Your task to perform on an android device: Open internet settings Image 0: 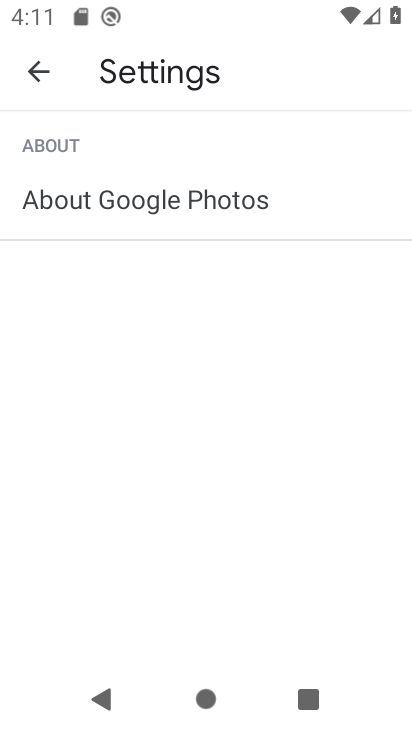
Step 0: press home button
Your task to perform on an android device: Open internet settings Image 1: 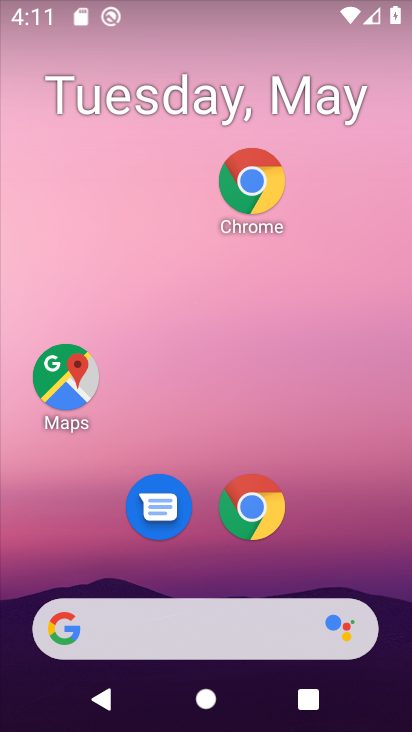
Step 1: drag from (361, 555) to (316, 75)
Your task to perform on an android device: Open internet settings Image 2: 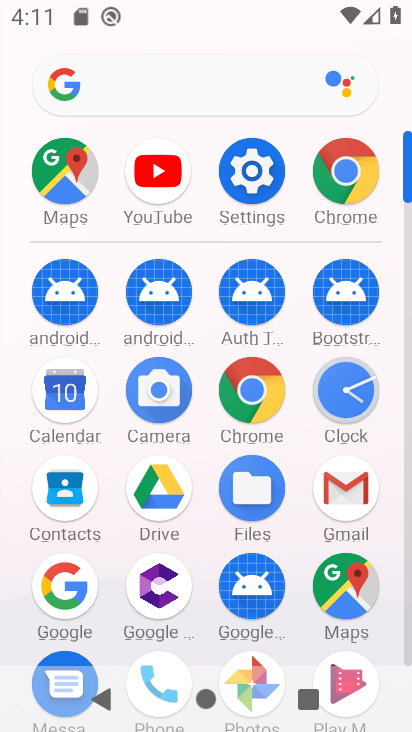
Step 2: click (249, 168)
Your task to perform on an android device: Open internet settings Image 3: 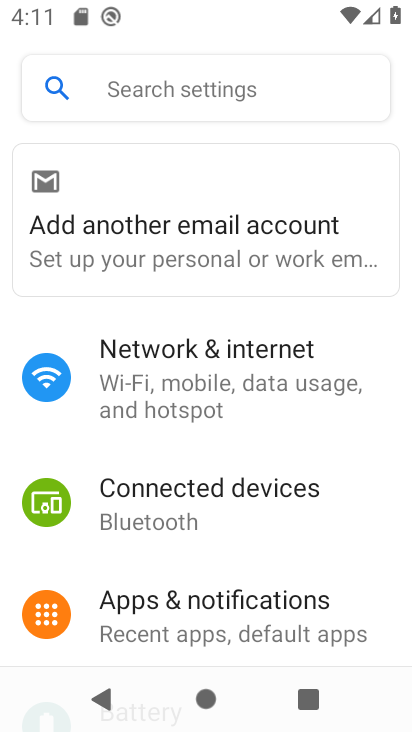
Step 3: click (182, 392)
Your task to perform on an android device: Open internet settings Image 4: 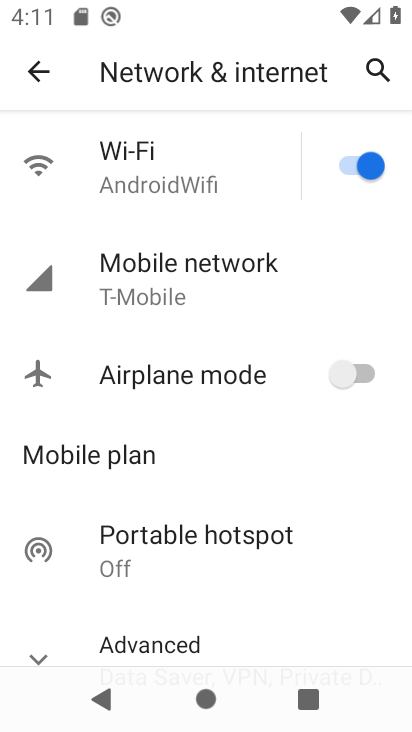
Step 4: click (126, 284)
Your task to perform on an android device: Open internet settings Image 5: 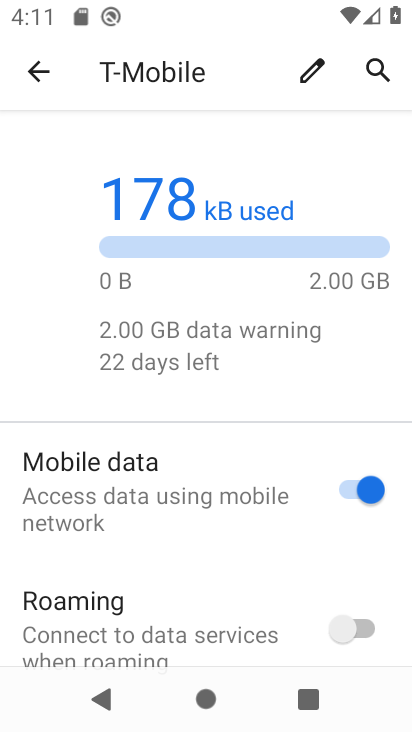
Step 5: task complete